Your task to perform on an android device: Go to Yahoo.com Image 0: 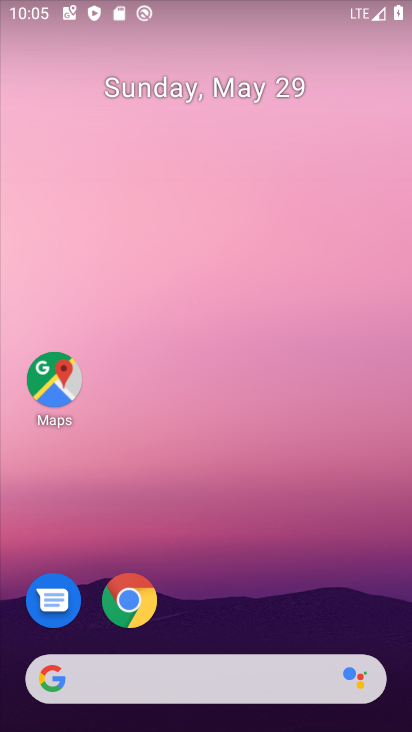
Step 0: press home button
Your task to perform on an android device: Go to Yahoo.com Image 1: 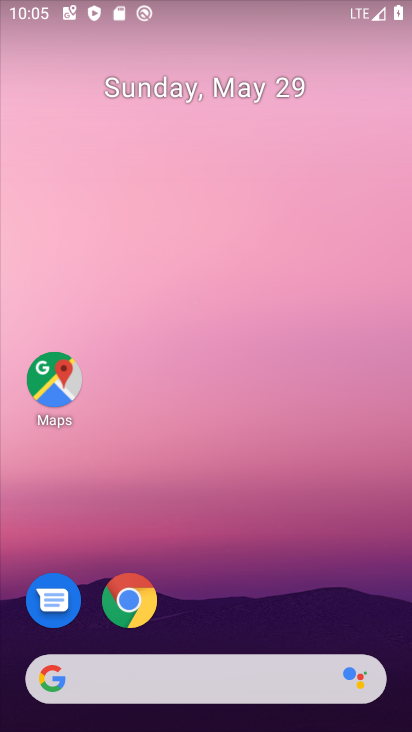
Step 1: click (133, 611)
Your task to perform on an android device: Go to Yahoo.com Image 2: 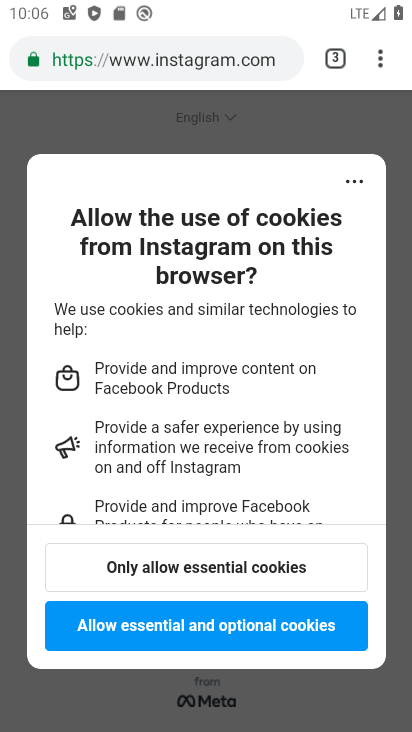
Step 2: click (177, 52)
Your task to perform on an android device: Go to Yahoo.com Image 3: 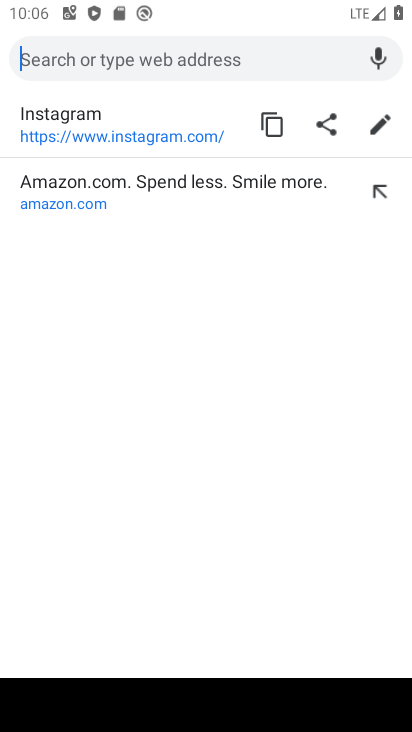
Step 3: type "Yahoo.com"
Your task to perform on an android device: Go to Yahoo.com Image 4: 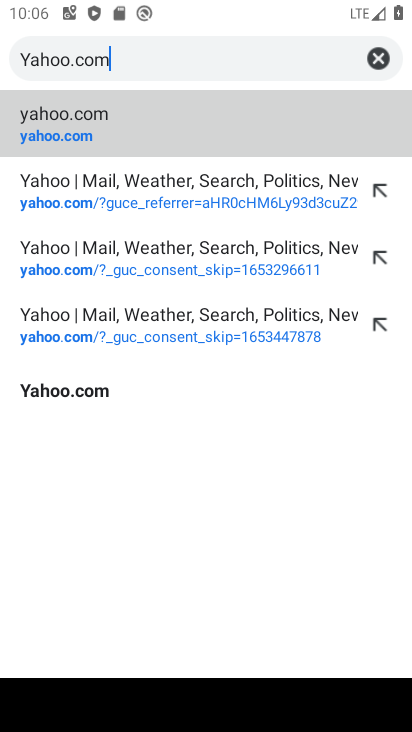
Step 4: type ""
Your task to perform on an android device: Go to Yahoo.com Image 5: 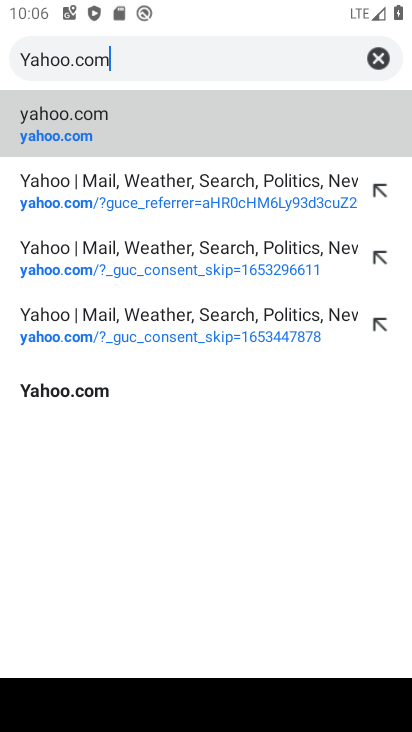
Step 5: click (110, 123)
Your task to perform on an android device: Go to Yahoo.com Image 6: 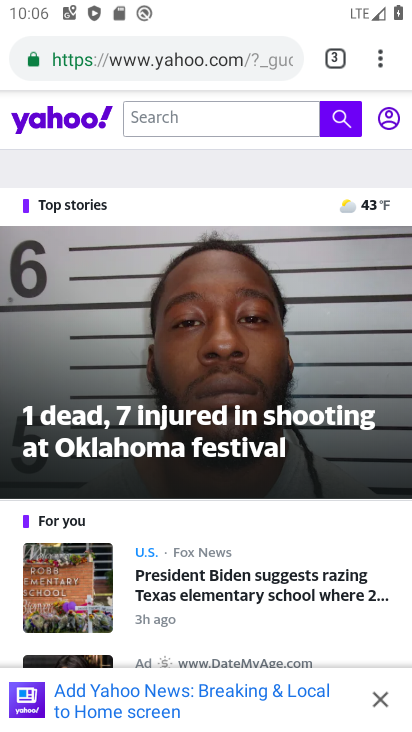
Step 6: task complete